Your task to perform on an android device: find photos in the google photos app Image 0: 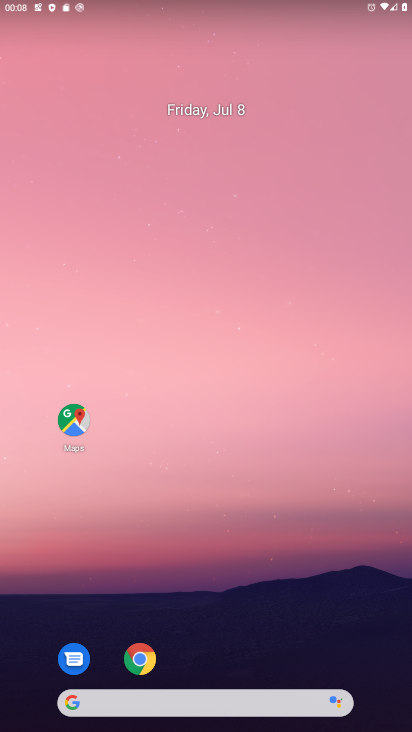
Step 0: drag from (228, 642) to (271, 45)
Your task to perform on an android device: find photos in the google photos app Image 1: 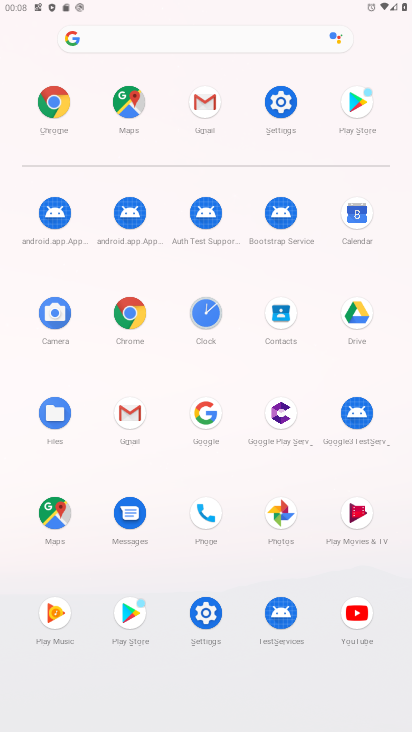
Step 1: click (283, 526)
Your task to perform on an android device: find photos in the google photos app Image 2: 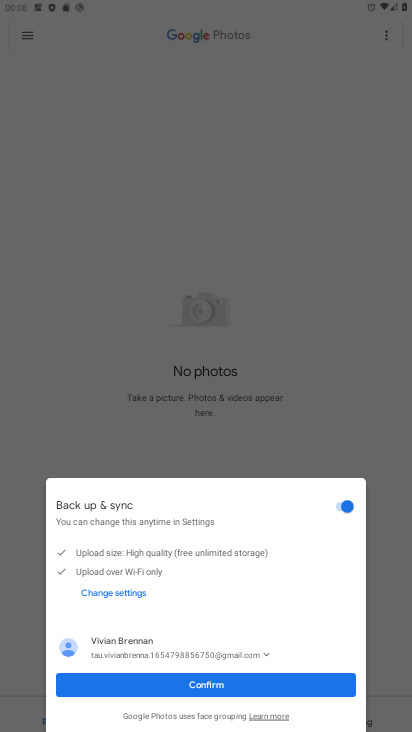
Step 2: click (204, 687)
Your task to perform on an android device: find photos in the google photos app Image 3: 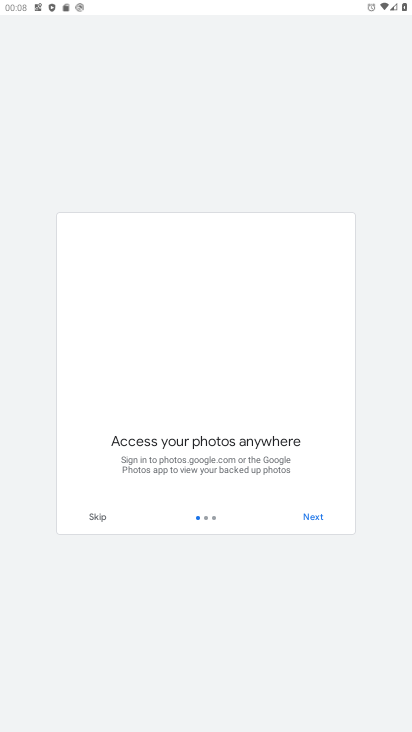
Step 3: click (311, 524)
Your task to perform on an android device: find photos in the google photos app Image 4: 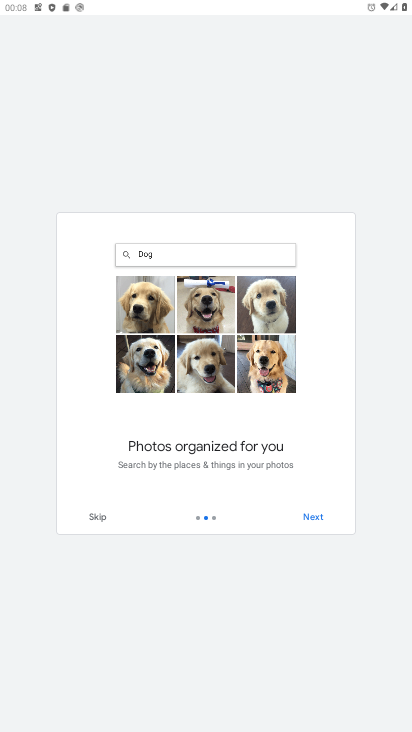
Step 4: click (312, 520)
Your task to perform on an android device: find photos in the google photos app Image 5: 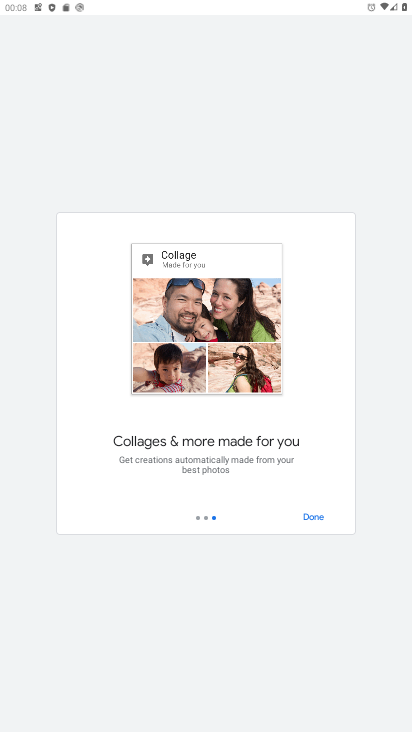
Step 5: click (312, 520)
Your task to perform on an android device: find photos in the google photos app Image 6: 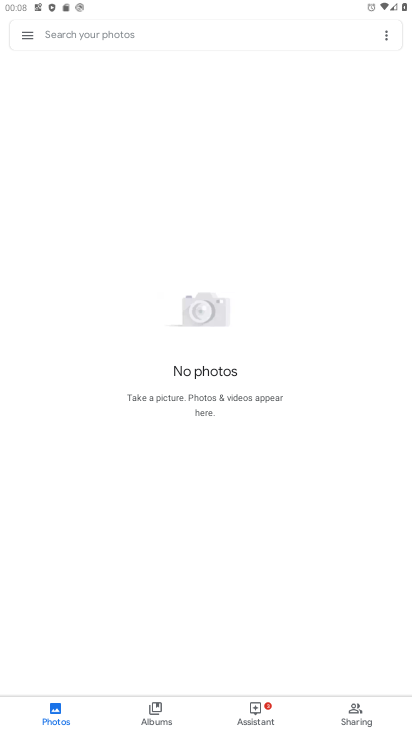
Step 6: task complete